Your task to perform on an android device: Show me the alarms in the clock app Image 0: 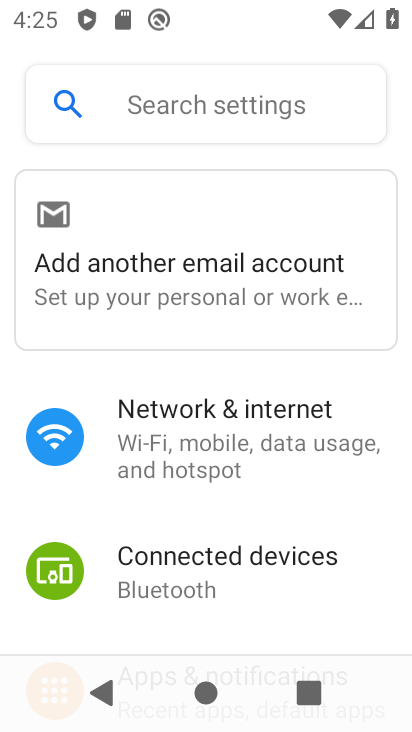
Step 0: press home button
Your task to perform on an android device: Show me the alarms in the clock app Image 1: 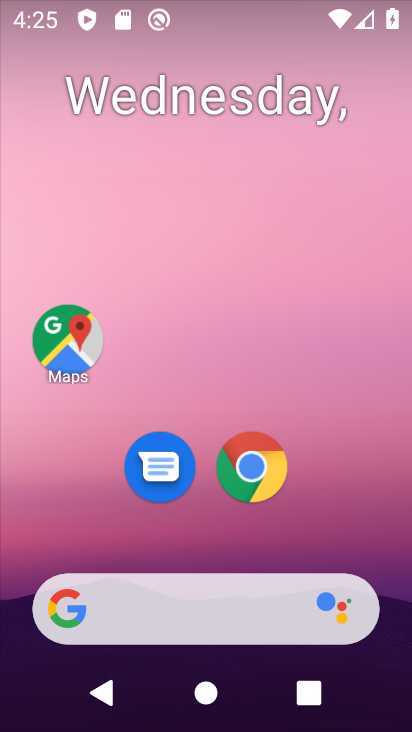
Step 1: drag from (331, 512) to (261, 15)
Your task to perform on an android device: Show me the alarms in the clock app Image 2: 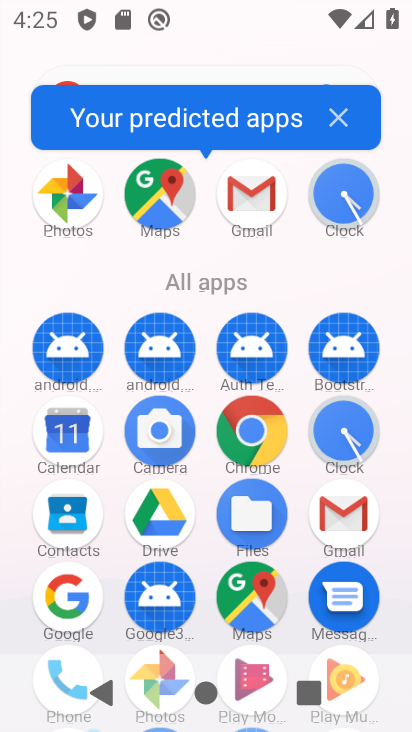
Step 2: click (342, 202)
Your task to perform on an android device: Show me the alarms in the clock app Image 3: 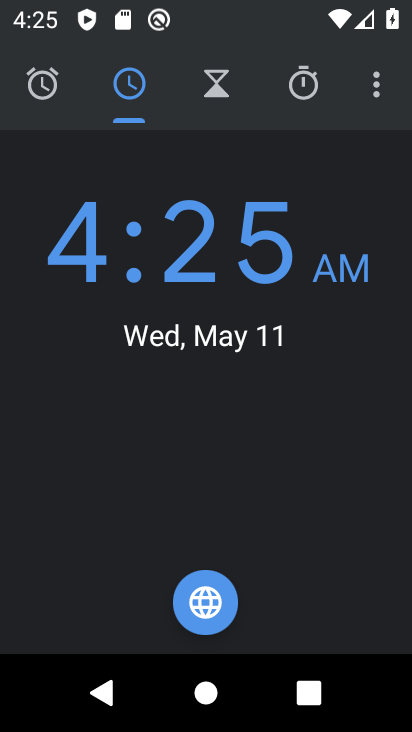
Step 3: click (60, 79)
Your task to perform on an android device: Show me the alarms in the clock app Image 4: 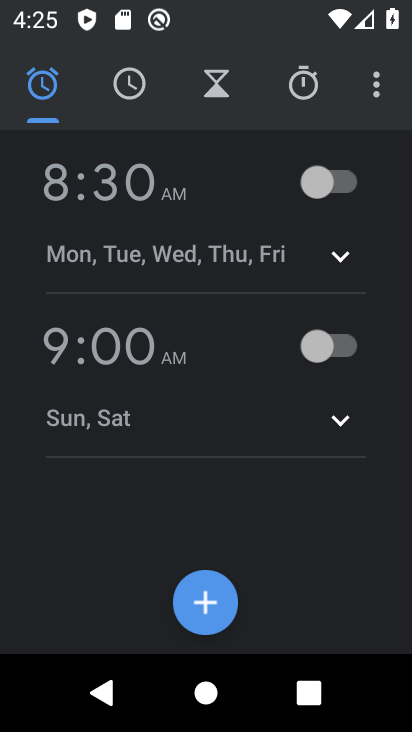
Step 4: task complete